Your task to perform on an android device: open app "Facebook" (install if not already installed) and enter user name: "resultants@gmail.com" and password: "earned" Image 0: 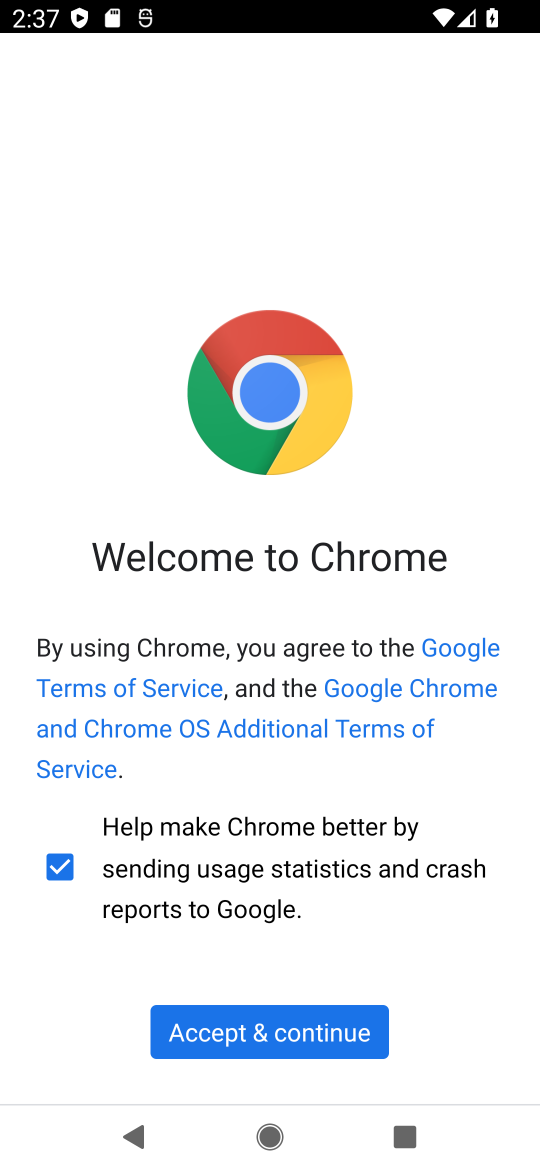
Step 0: press home button
Your task to perform on an android device: open app "Facebook" (install if not already installed) and enter user name: "resultants@gmail.com" and password: "earned" Image 1: 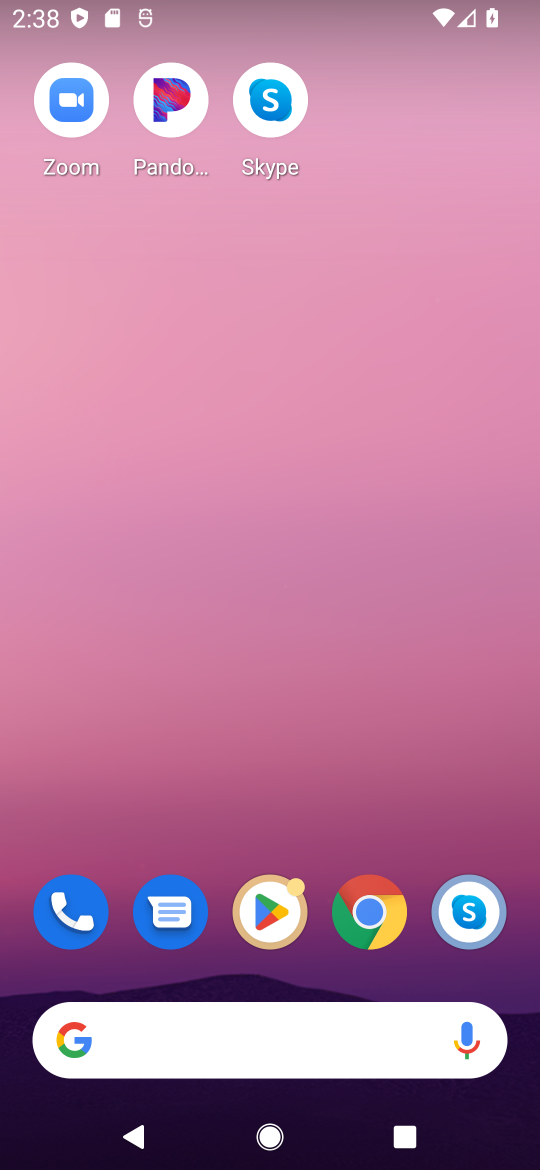
Step 1: drag from (247, 1042) to (219, 0)
Your task to perform on an android device: open app "Facebook" (install if not already installed) and enter user name: "resultants@gmail.com" and password: "earned" Image 2: 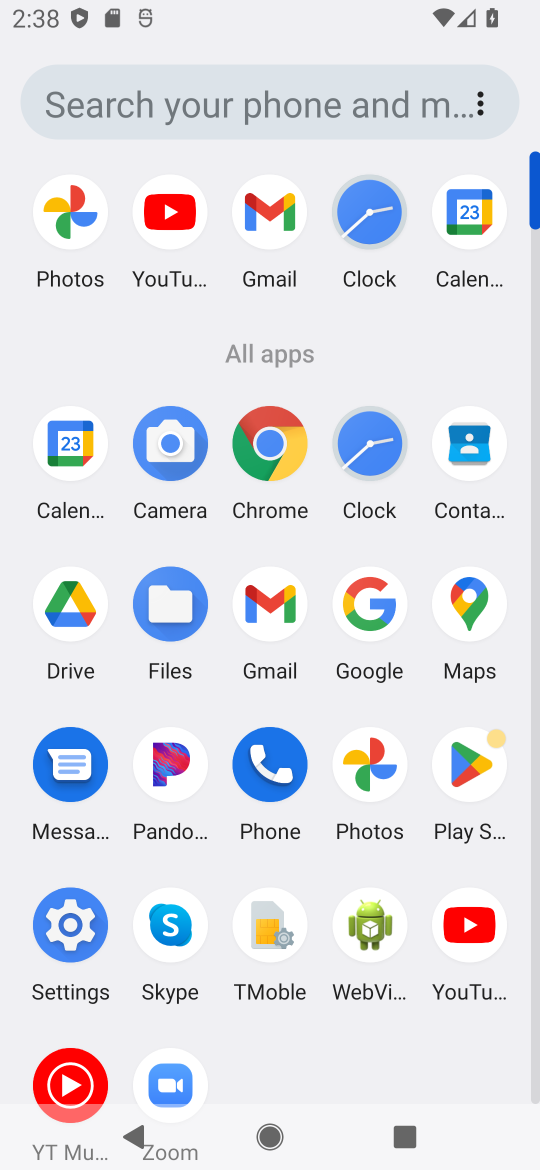
Step 2: click (476, 768)
Your task to perform on an android device: open app "Facebook" (install if not already installed) and enter user name: "resultants@gmail.com" and password: "earned" Image 3: 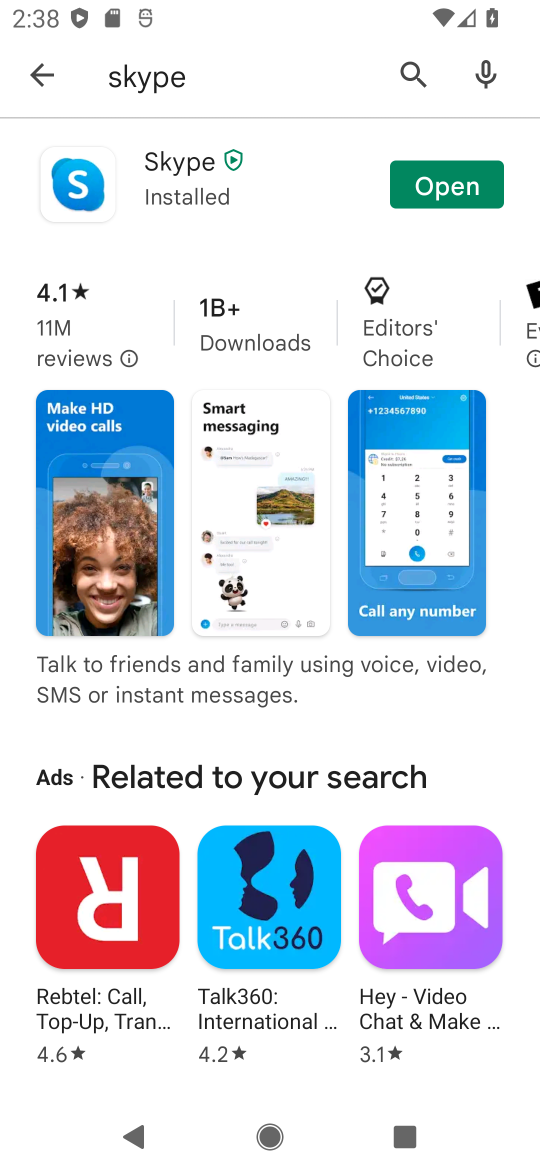
Step 3: press back button
Your task to perform on an android device: open app "Facebook" (install if not already installed) and enter user name: "resultants@gmail.com" and password: "earned" Image 4: 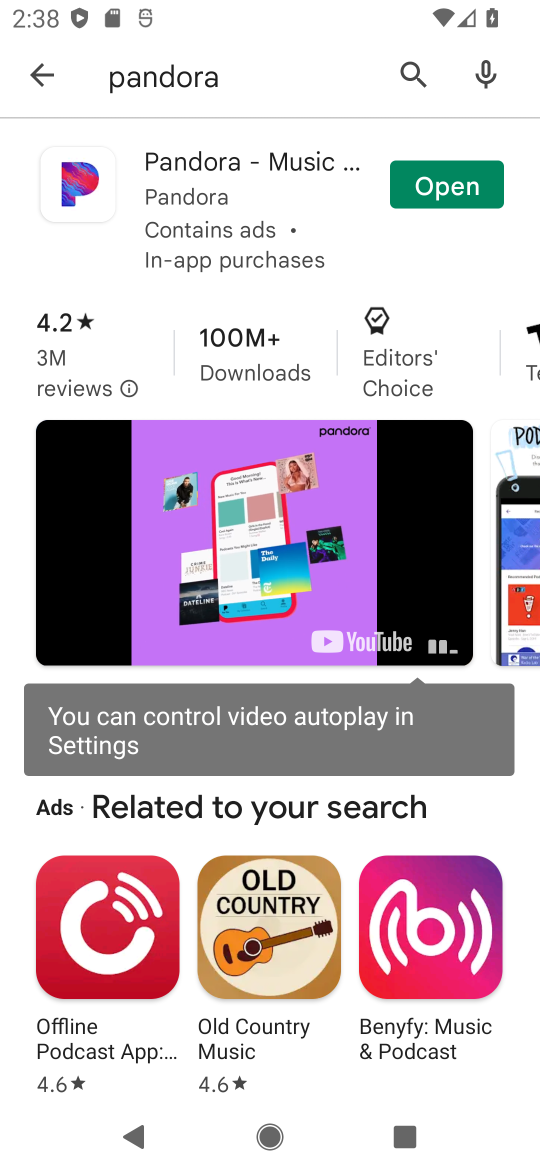
Step 4: press back button
Your task to perform on an android device: open app "Facebook" (install if not already installed) and enter user name: "resultants@gmail.com" and password: "earned" Image 5: 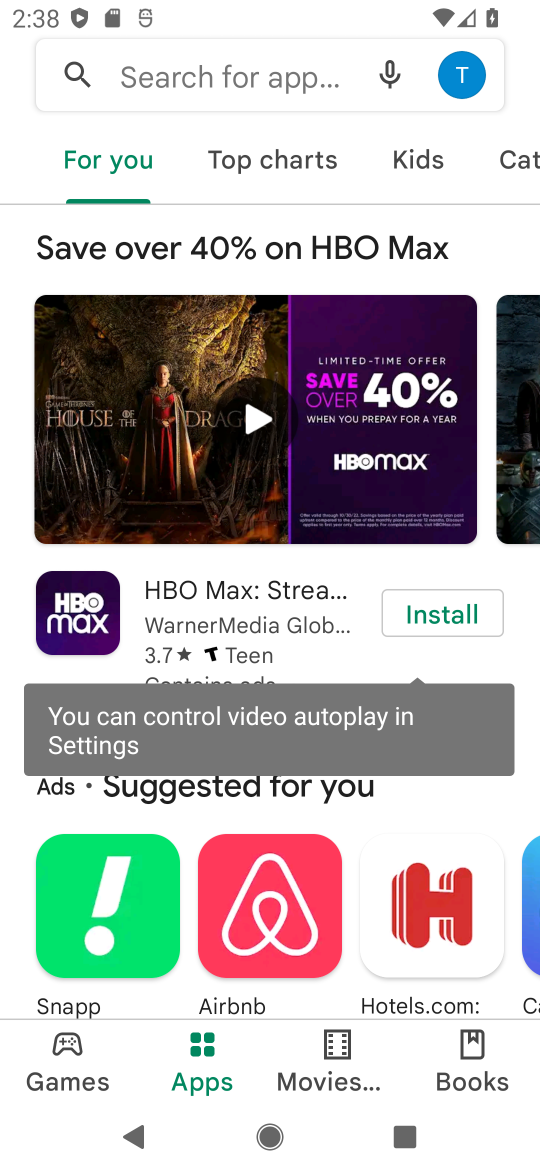
Step 5: click (251, 80)
Your task to perform on an android device: open app "Facebook" (install if not already installed) and enter user name: "resultants@gmail.com" and password: "earned" Image 6: 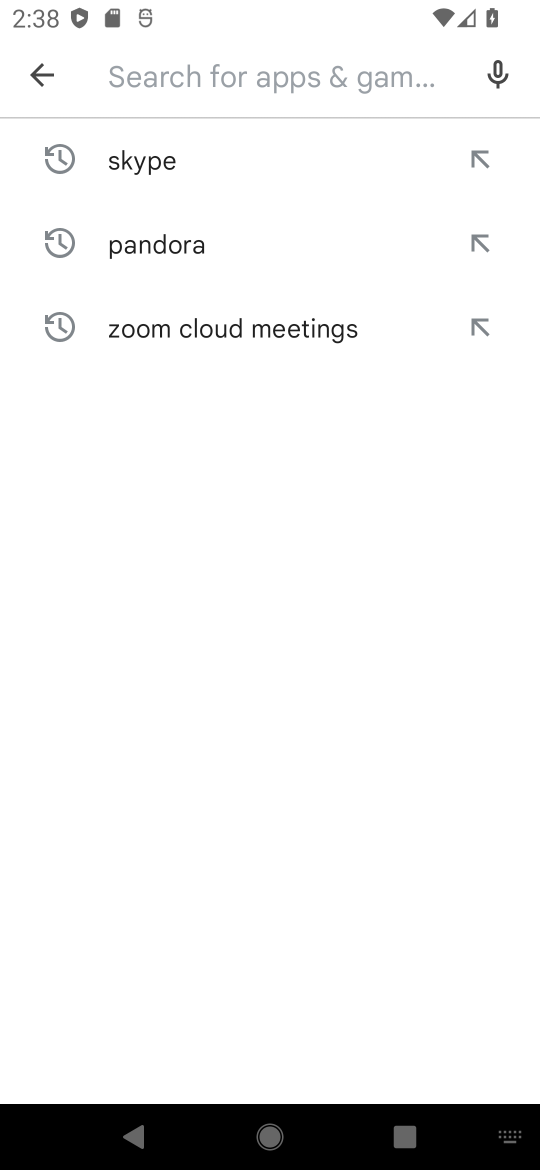
Step 6: type "Facebook"
Your task to perform on an android device: open app "Facebook" (install if not already installed) and enter user name: "resultants@gmail.com" and password: "earned" Image 7: 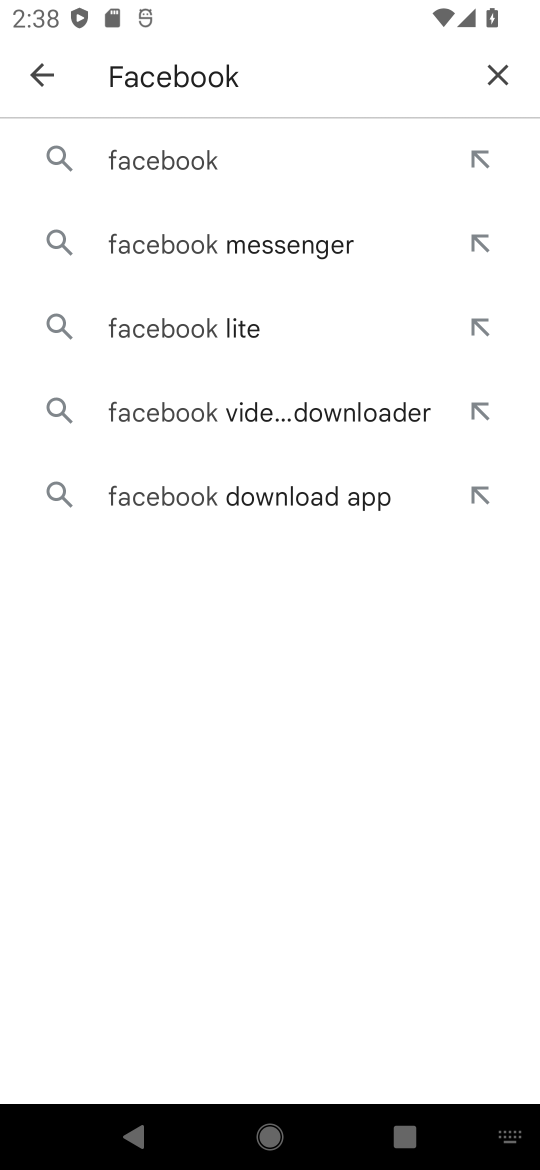
Step 7: click (182, 166)
Your task to perform on an android device: open app "Facebook" (install if not already installed) and enter user name: "resultants@gmail.com" and password: "earned" Image 8: 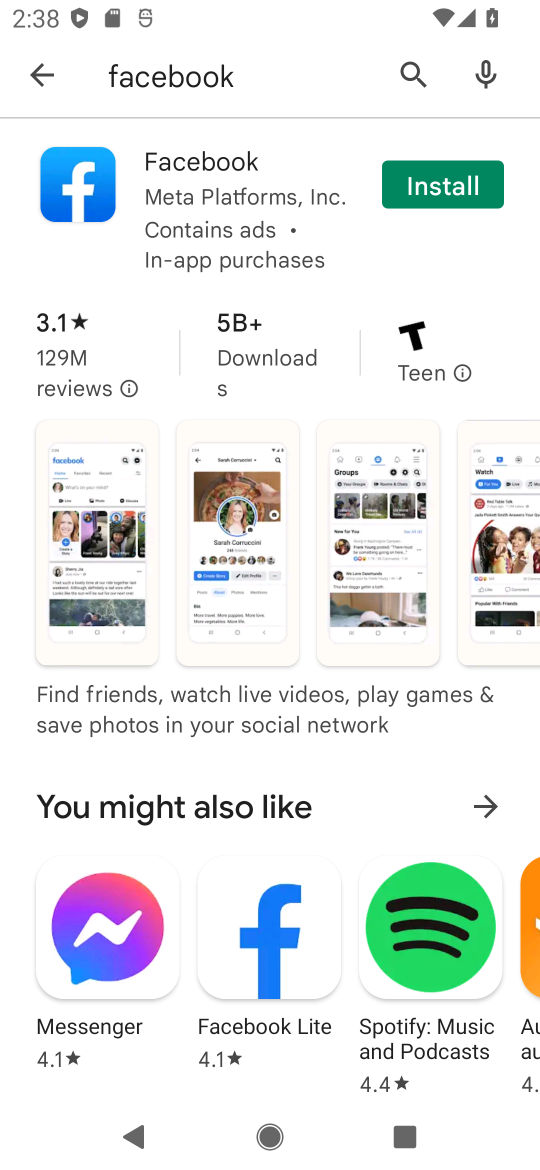
Step 8: click (448, 182)
Your task to perform on an android device: open app "Facebook" (install if not already installed) and enter user name: "resultants@gmail.com" and password: "earned" Image 9: 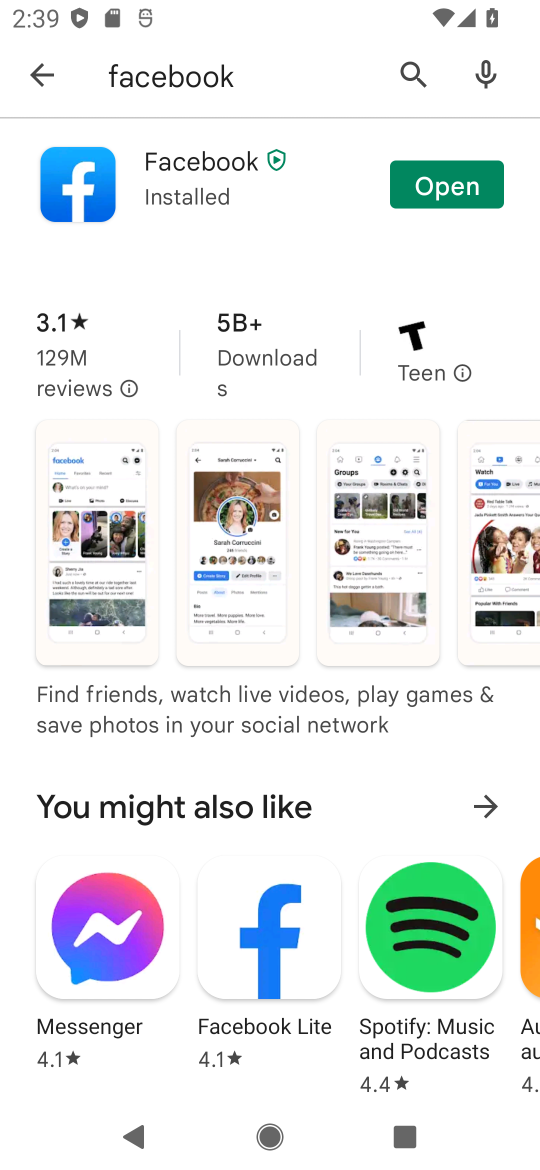
Step 9: click (459, 193)
Your task to perform on an android device: open app "Facebook" (install if not already installed) and enter user name: "resultants@gmail.com" and password: "earned" Image 10: 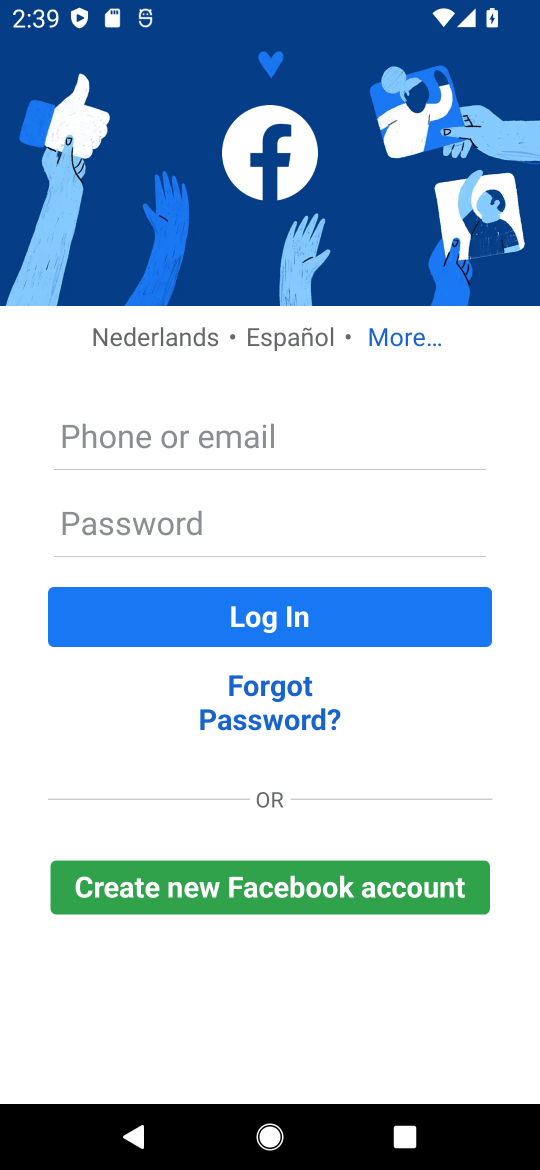
Step 10: click (284, 443)
Your task to perform on an android device: open app "Facebook" (install if not already installed) and enter user name: "resultants@gmail.com" and password: "earned" Image 11: 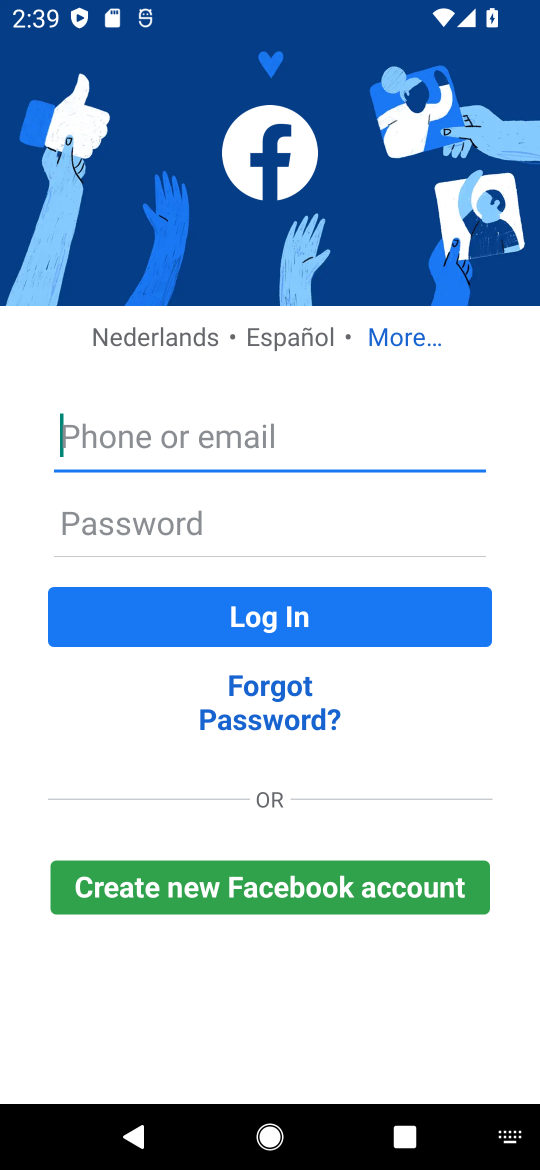
Step 11: click (243, 429)
Your task to perform on an android device: open app "Facebook" (install if not already installed) and enter user name: "resultants@gmail.com" and password: "earned" Image 12: 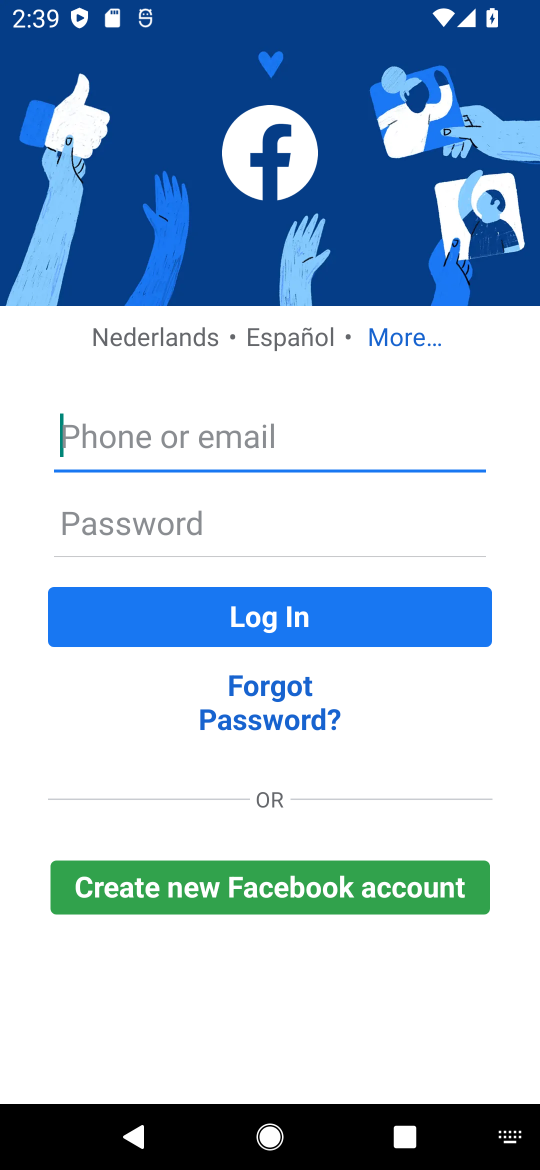
Step 12: type "resultants@gmail.com"
Your task to perform on an android device: open app "Facebook" (install if not already installed) and enter user name: "resultants@gmail.com" and password: "earned" Image 13: 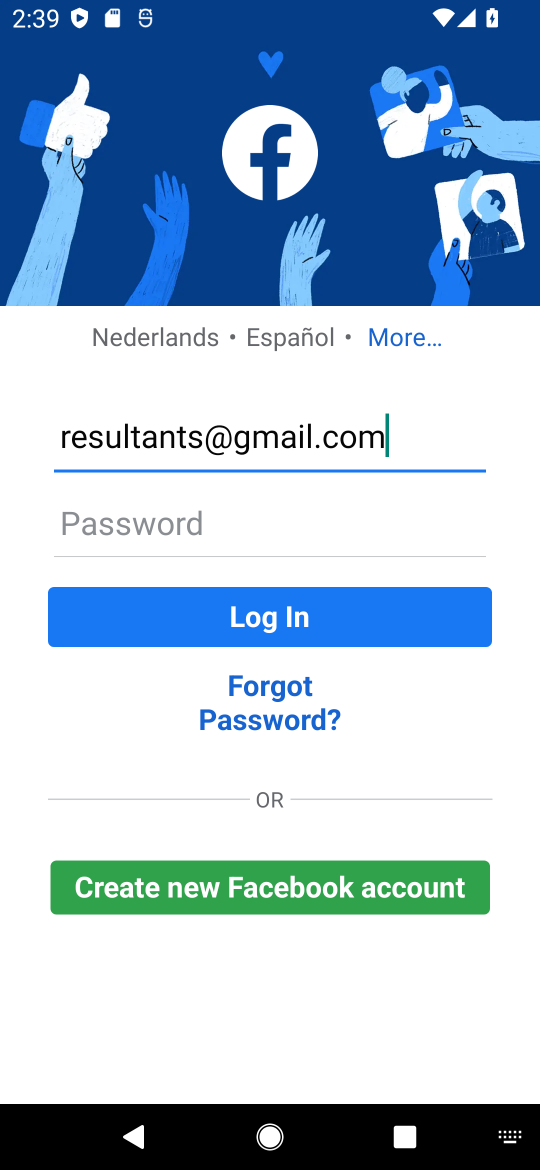
Step 13: click (232, 524)
Your task to perform on an android device: open app "Facebook" (install if not already installed) and enter user name: "resultants@gmail.com" and password: "earned" Image 14: 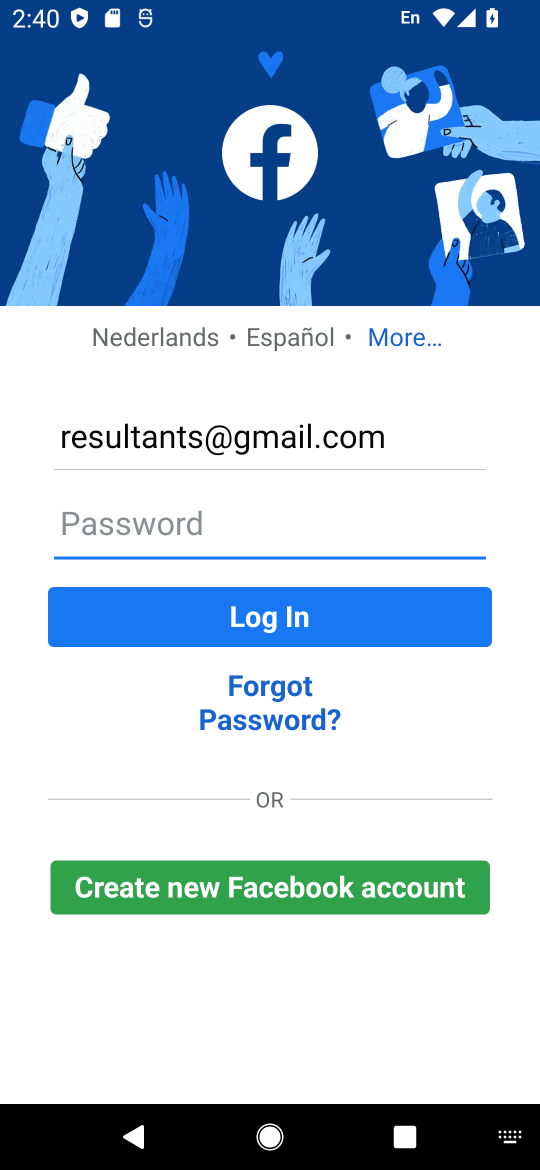
Step 14: type "earned"
Your task to perform on an android device: open app "Facebook" (install if not already installed) and enter user name: "resultants@gmail.com" and password: "earned" Image 15: 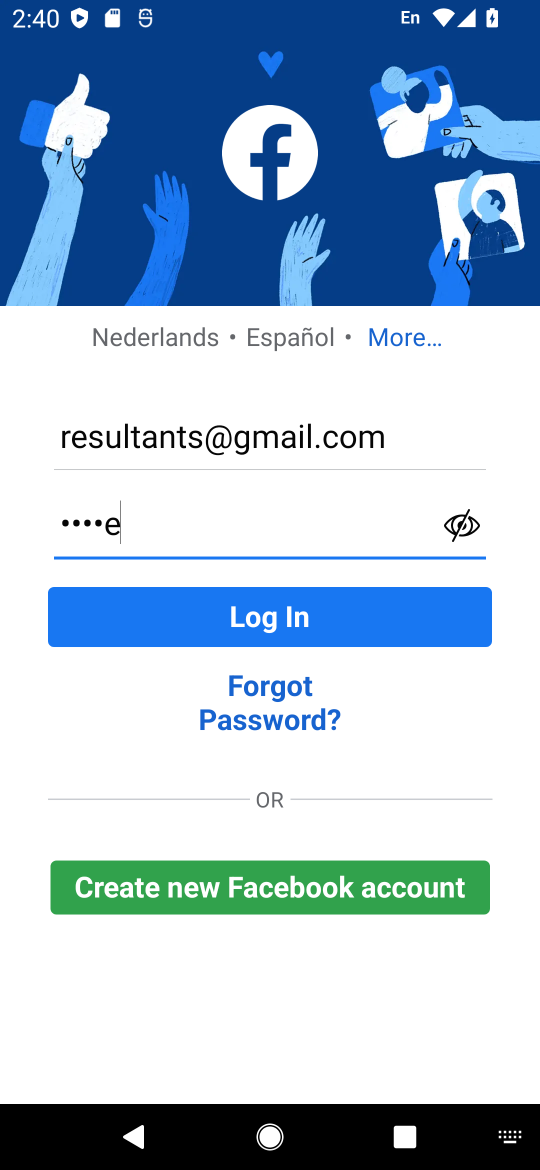
Step 15: type ""
Your task to perform on an android device: open app "Facebook" (install if not already installed) and enter user name: "resultants@gmail.com" and password: "earned" Image 16: 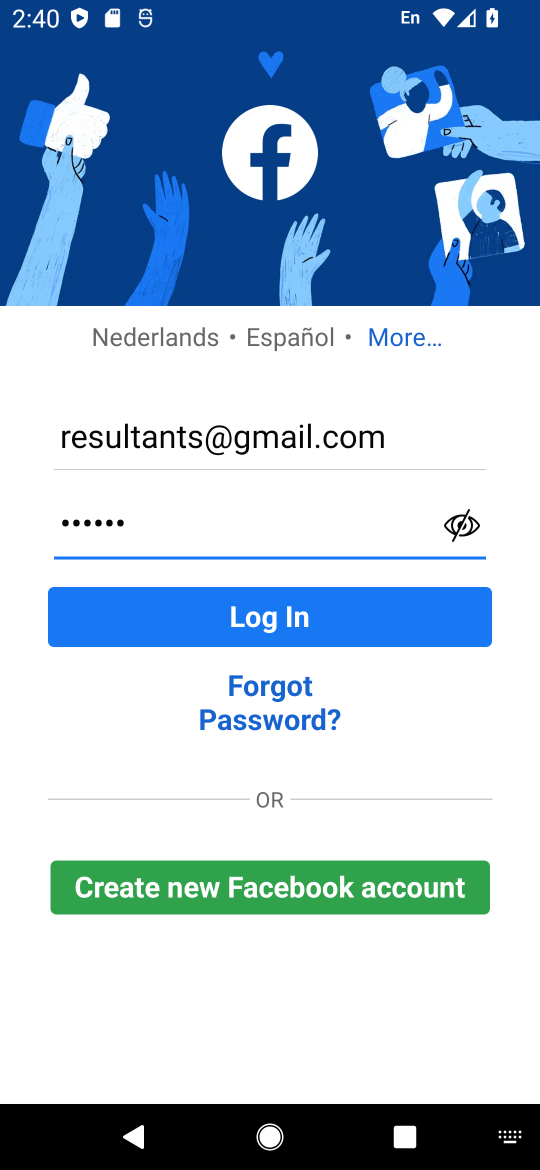
Step 16: task complete